Your task to perform on an android device: choose inbox layout in the gmail app Image 0: 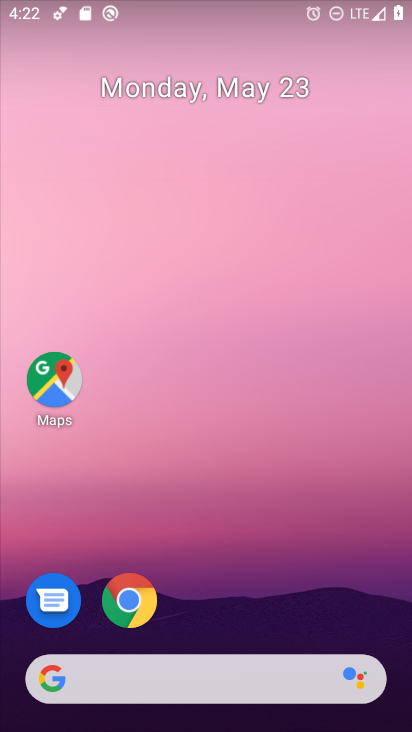
Step 0: drag from (279, 610) to (260, 16)
Your task to perform on an android device: choose inbox layout in the gmail app Image 1: 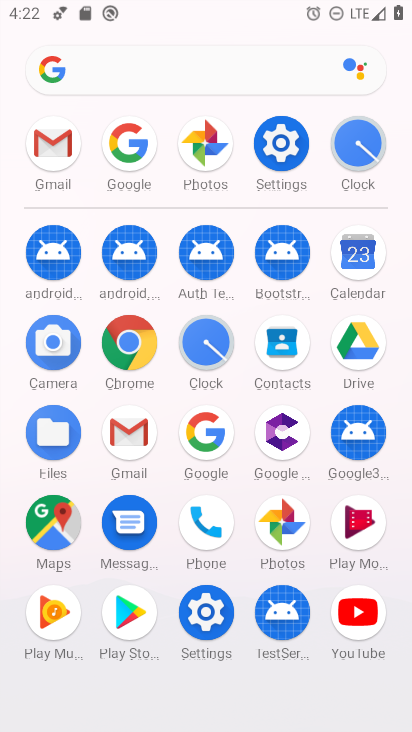
Step 1: click (130, 436)
Your task to perform on an android device: choose inbox layout in the gmail app Image 2: 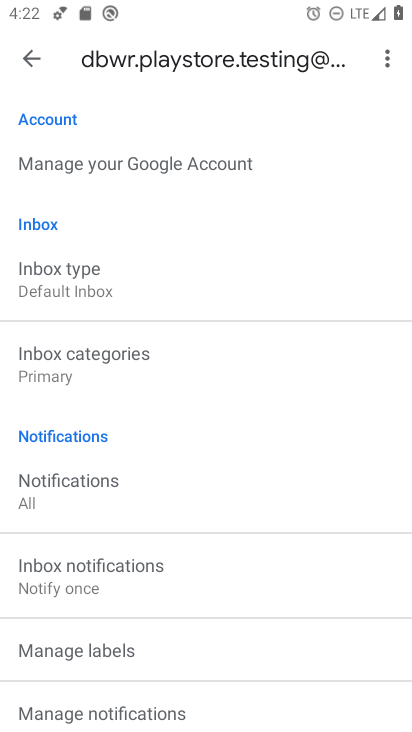
Step 2: click (59, 286)
Your task to perform on an android device: choose inbox layout in the gmail app Image 3: 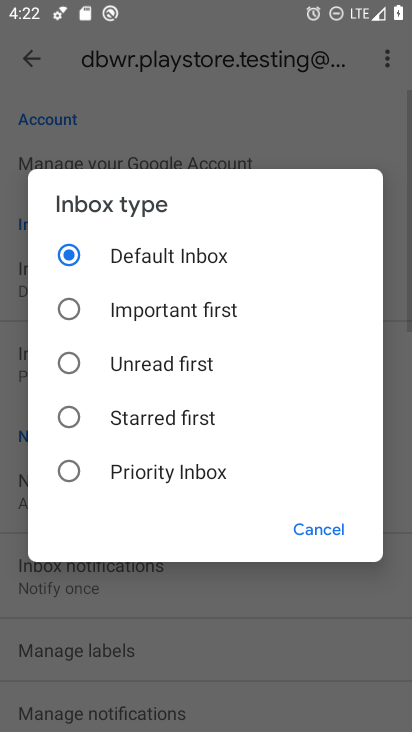
Step 3: click (64, 374)
Your task to perform on an android device: choose inbox layout in the gmail app Image 4: 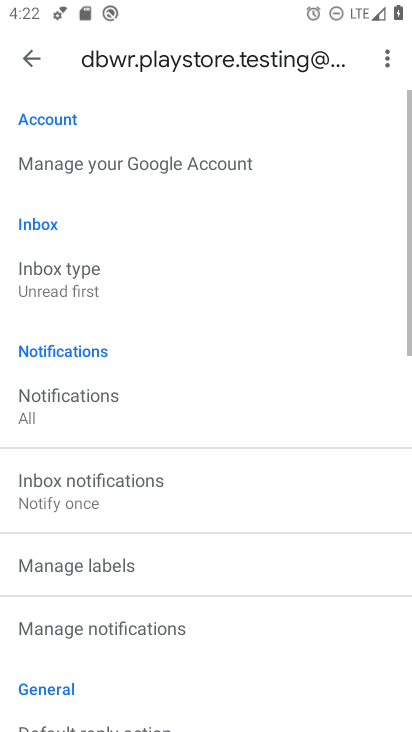
Step 4: task complete